Your task to perform on an android device: turn smart compose on in the gmail app Image 0: 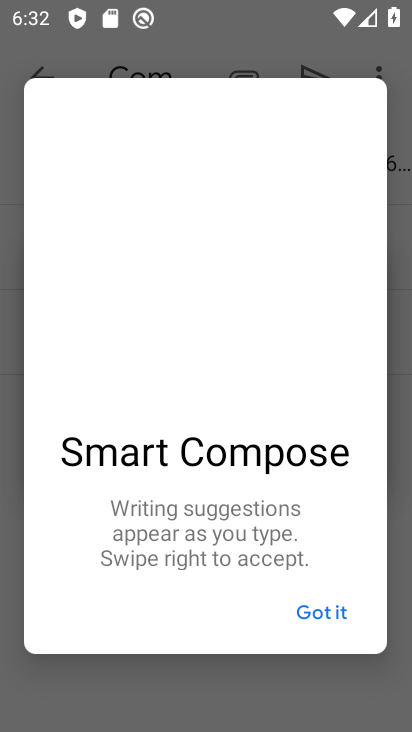
Step 0: press home button
Your task to perform on an android device: turn smart compose on in the gmail app Image 1: 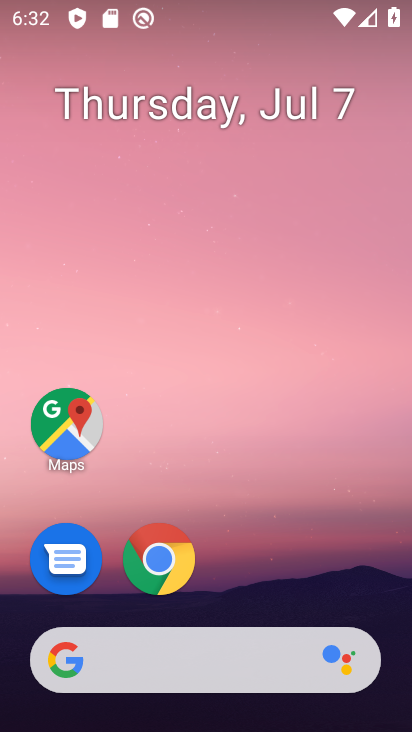
Step 1: drag from (206, 509) to (213, 248)
Your task to perform on an android device: turn smart compose on in the gmail app Image 2: 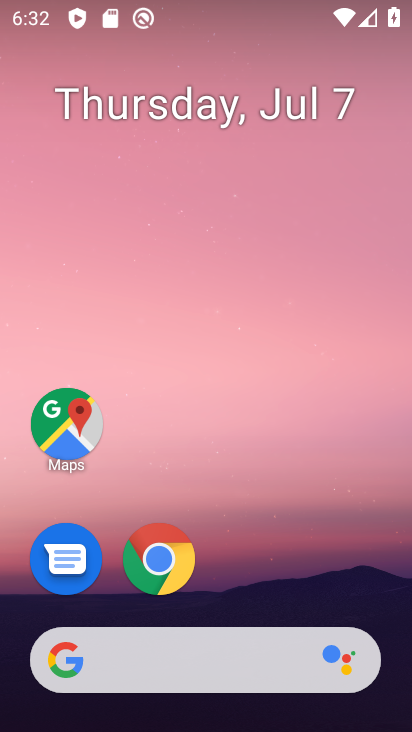
Step 2: drag from (214, 150) to (207, 54)
Your task to perform on an android device: turn smart compose on in the gmail app Image 3: 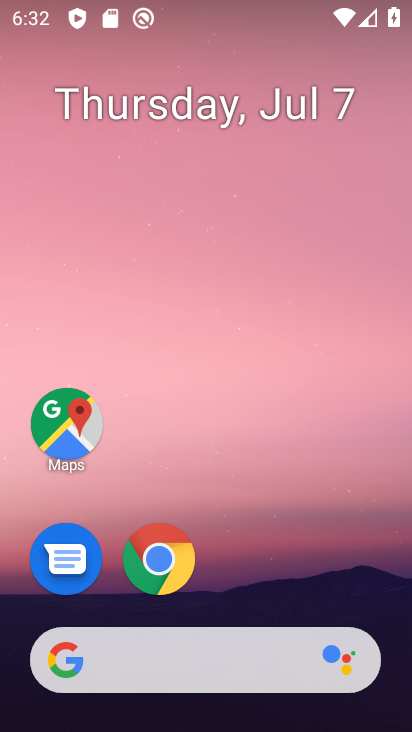
Step 3: click (270, 41)
Your task to perform on an android device: turn smart compose on in the gmail app Image 4: 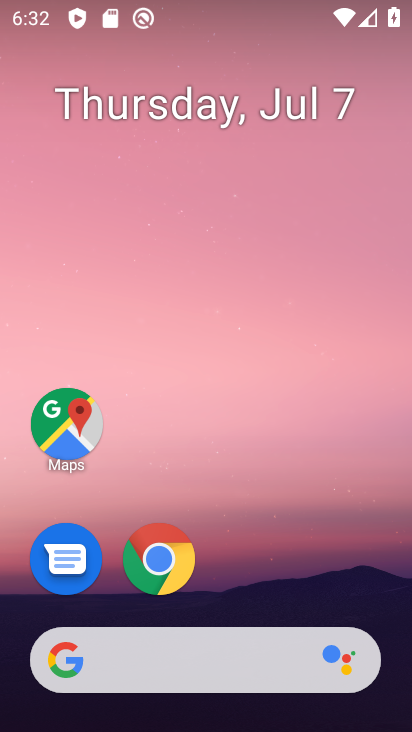
Step 4: drag from (195, 278) to (303, 100)
Your task to perform on an android device: turn smart compose on in the gmail app Image 5: 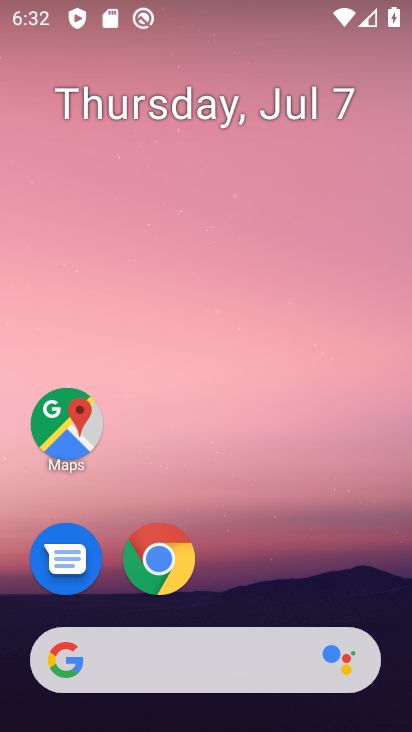
Step 5: drag from (255, 395) to (293, 163)
Your task to perform on an android device: turn smart compose on in the gmail app Image 6: 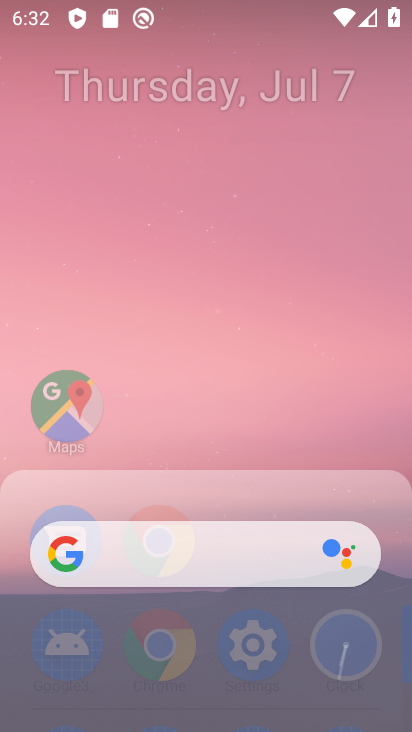
Step 6: drag from (232, 571) to (280, 99)
Your task to perform on an android device: turn smart compose on in the gmail app Image 7: 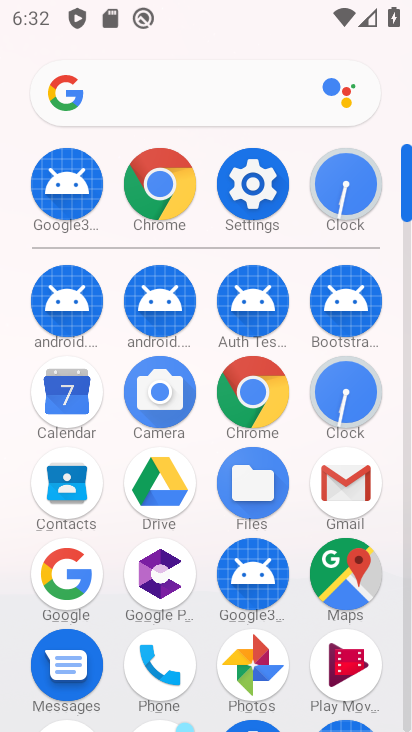
Step 7: click (343, 479)
Your task to perform on an android device: turn smart compose on in the gmail app Image 8: 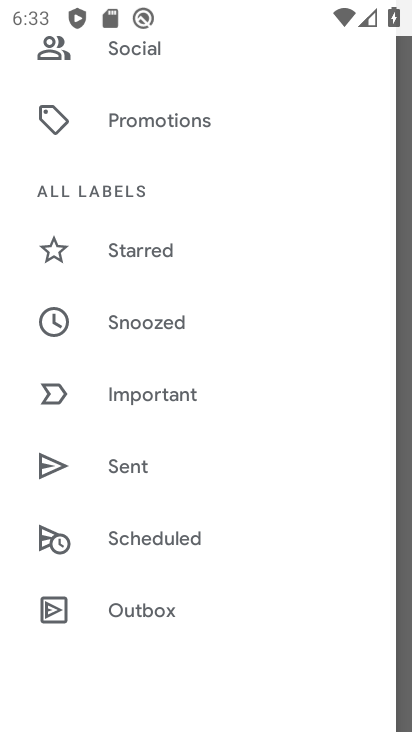
Step 8: drag from (215, 531) to (247, 262)
Your task to perform on an android device: turn smart compose on in the gmail app Image 9: 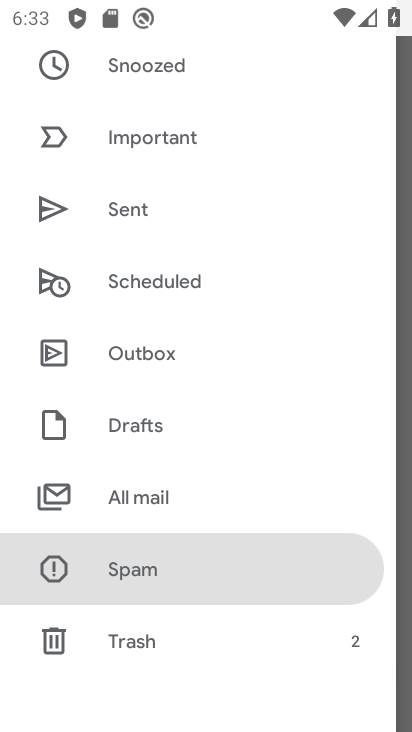
Step 9: drag from (172, 549) to (205, 186)
Your task to perform on an android device: turn smart compose on in the gmail app Image 10: 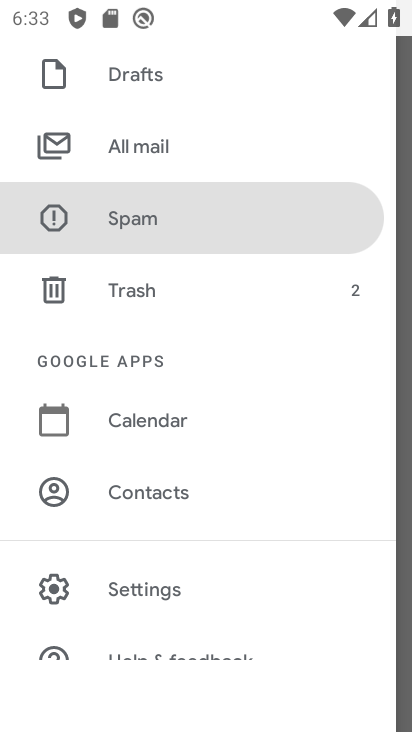
Step 10: click (134, 590)
Your task to perform on an android device: turn smart compose on in the gmail app Image 11: 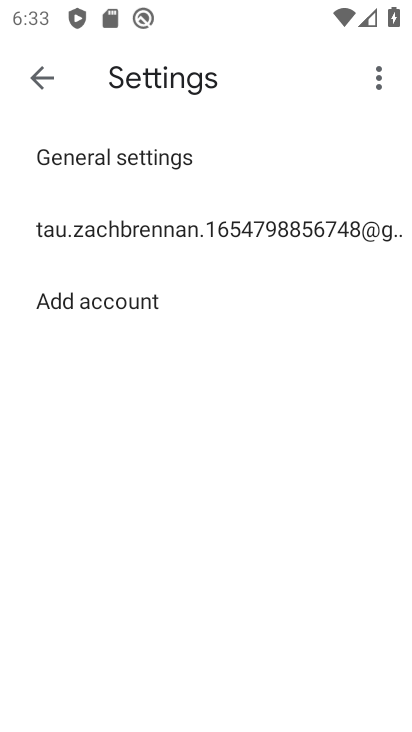
Step 11: click (200, 259)
Your task to perform on an android device: turn smart compose on in the gmail app Image 12: 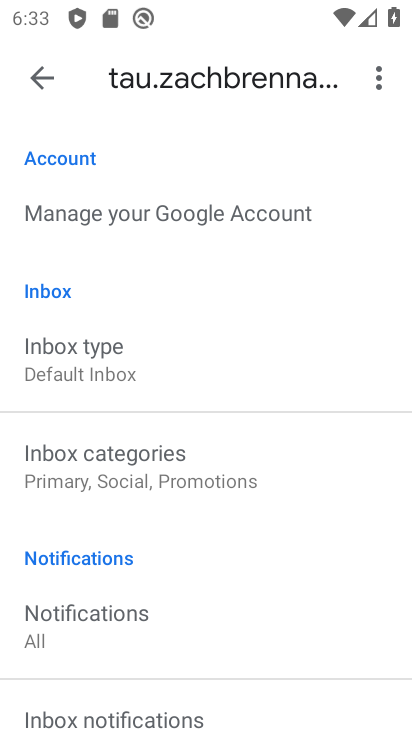
Step 12: task complete